Your task to perform on an android device: Open Youtube and go to the subscriptions tab Image 0: 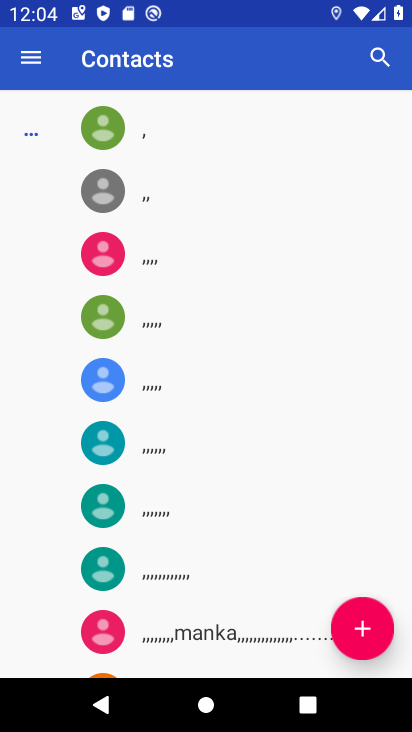
Step 0: press home button
Your task to perform on an android device: Open Youtube and go to the subscriptions tab Image 1: 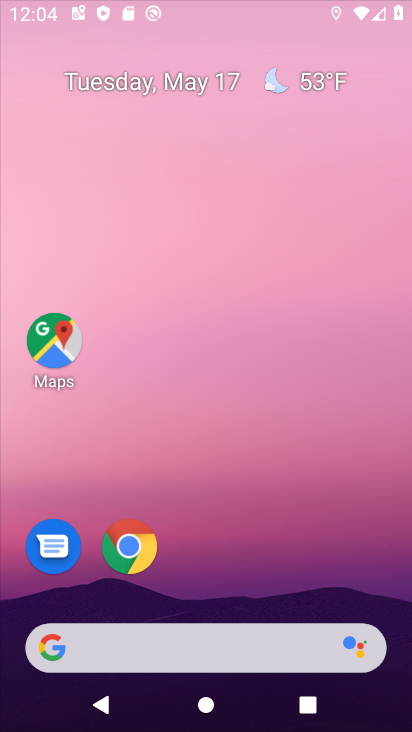
Step 1: drag from (211, 584) to (323, 31)
Your task to perform on an android device: Open Youtube and go to the subscriptions tab Image 2: 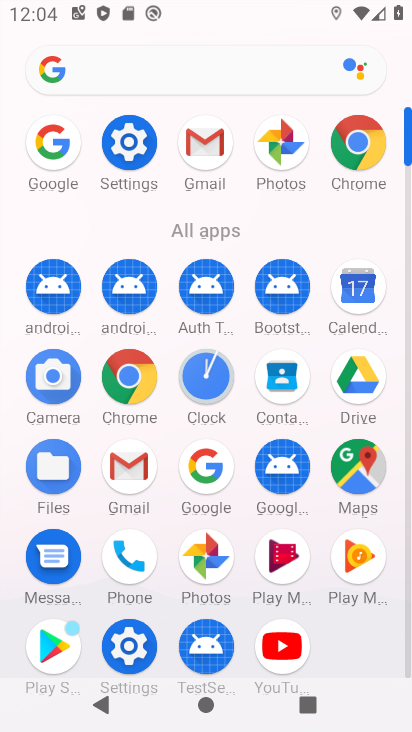
Step 2: click (275, 648)
Your task to perform on an android device: Open Youtube and go to the subscriptions tab Image 3: 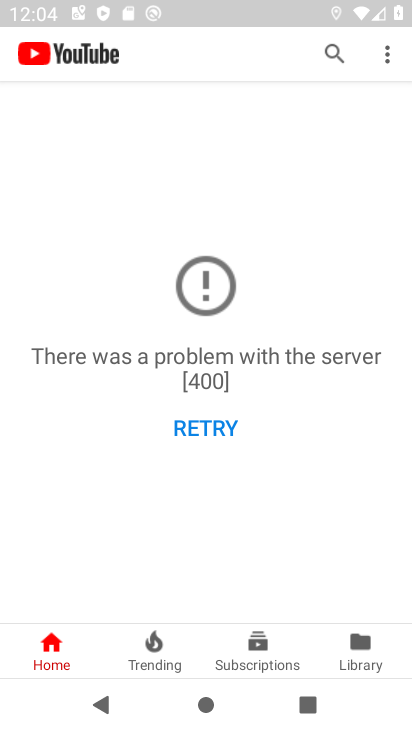
Step 3: click (257, 658)
Your task to perform on an android device: Open Youtube and go to the subscriptions tab Image 4: 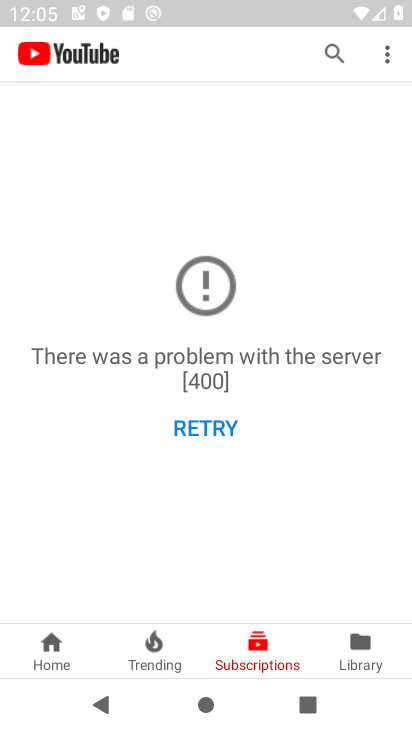
Step 4: task complete